Your task to perform on an android device: allow notifications from all sites in the chrome app Image 0: 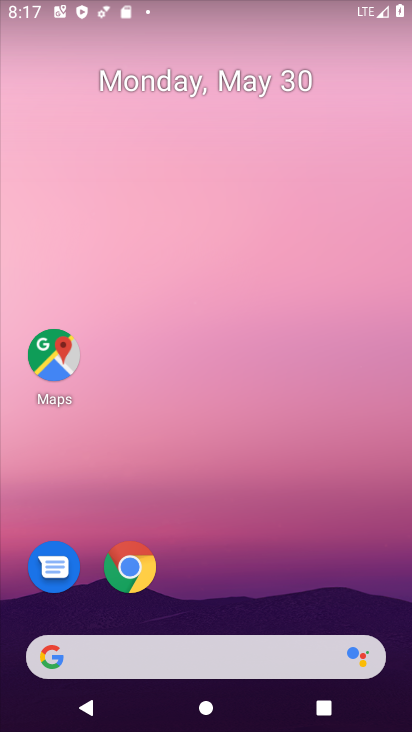
Step 0: click (139, 571)
Your task to perform on an android device: allow notifications from all sites in the chrome app Image 1: 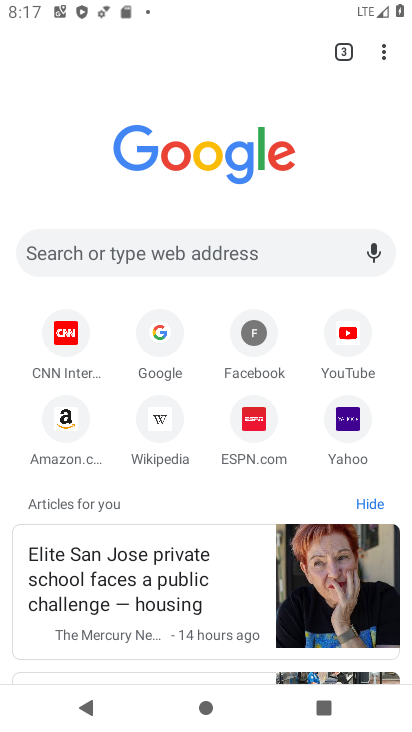
Step 1: click (388, 46)
Your task to perform on an android device: allow notifications from all sites in the chrome app Image 2: 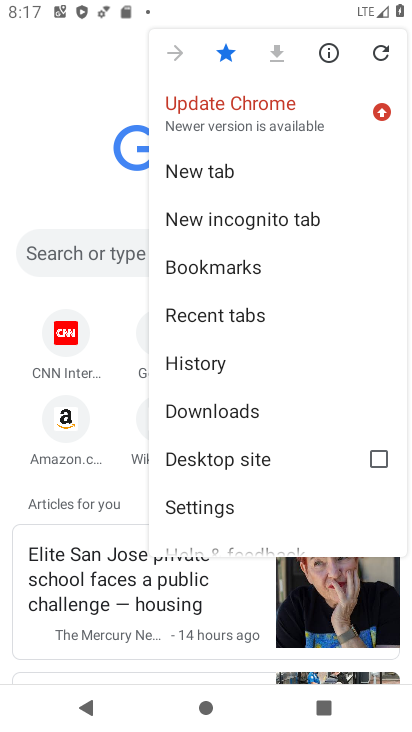
Step 2: click (223, 511)
Your task to perform on an android device: allow notifications from all sites in the chrome app Image 3: 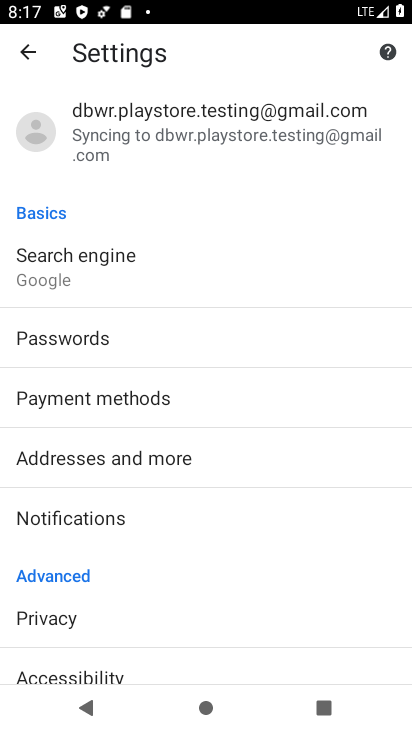
Step 3: click (143, 520)
Your task to perform on an android device: allow notifications from all sites in the chrome app Image 4: 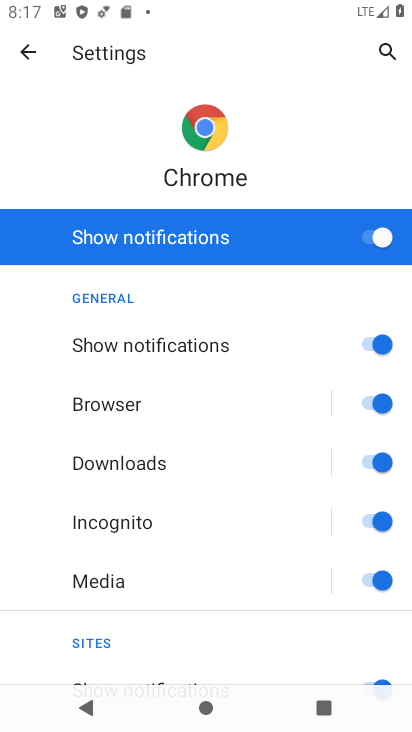
Step 4: task complete